Your task to perform on an android device: check google app version Image 0: 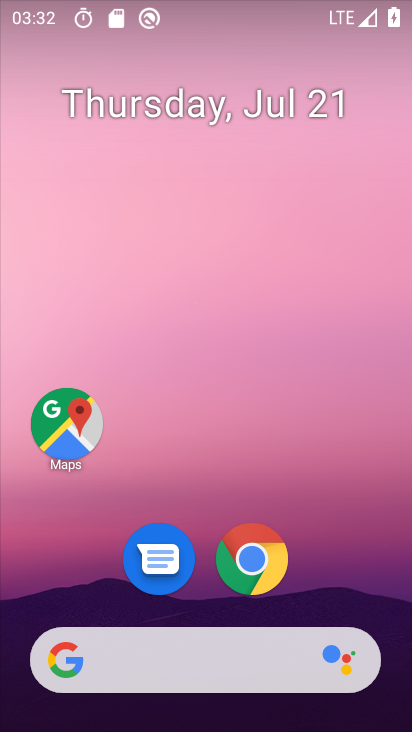
Step 0: drag from (337, 574) to (351, 97)
Your task to perform on an android device: check google app version Image 1: 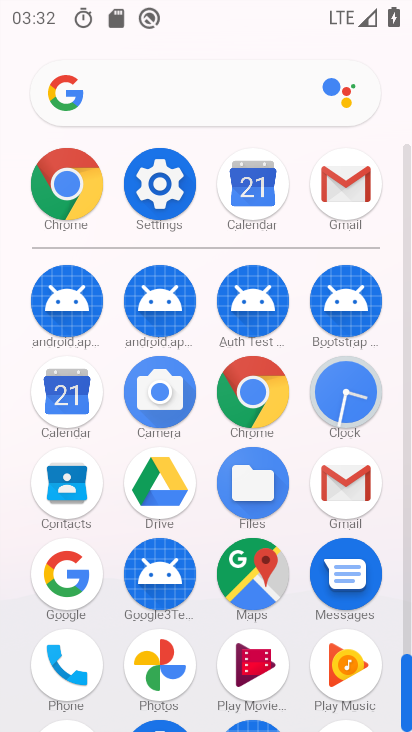
Step 1: click (69, 569)
Your task to perform on an android device: check google app version Image 2: 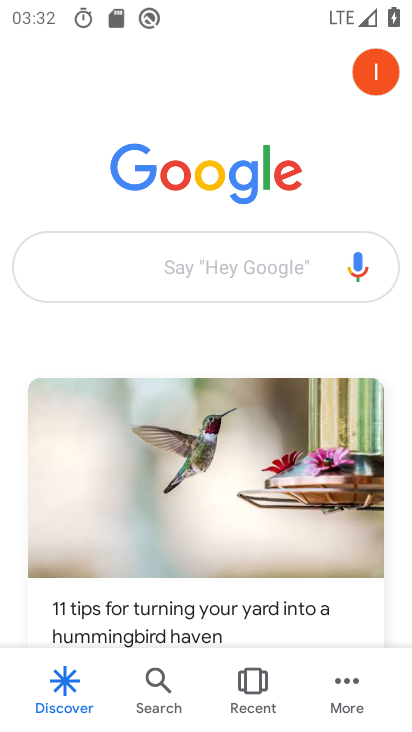
Step 2: click (343, 693)
Your task to perform on an android device: check google app version Image 3: 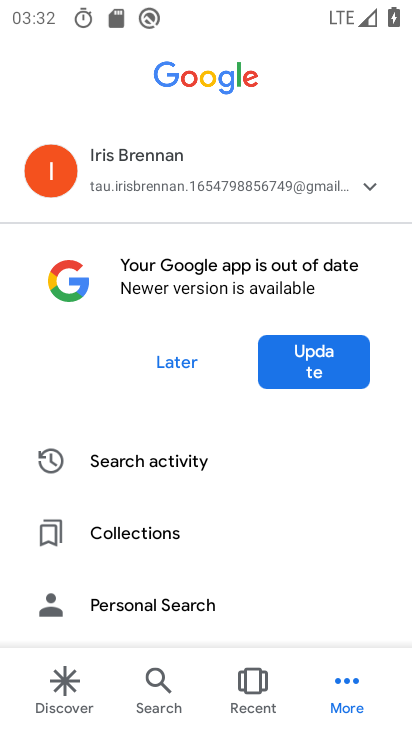
Step 3: drag from (352, 614) to (363, 496)
Your task to perform on an android device: check google app version Image 4: 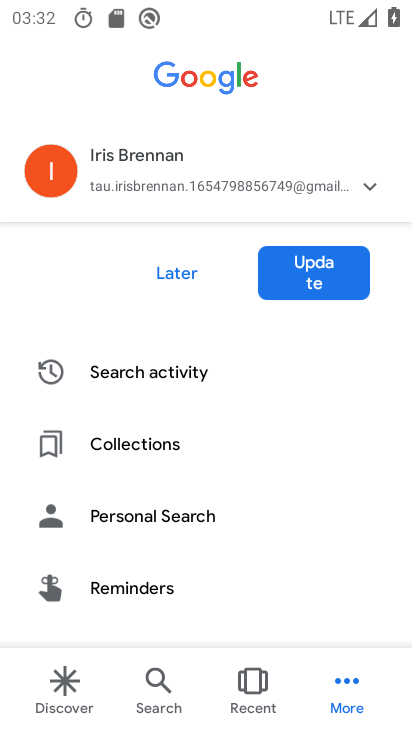
Step 4: drag from (341, 565) to (335, 474)
Your task to perform on an android device: check google app version Image 5: 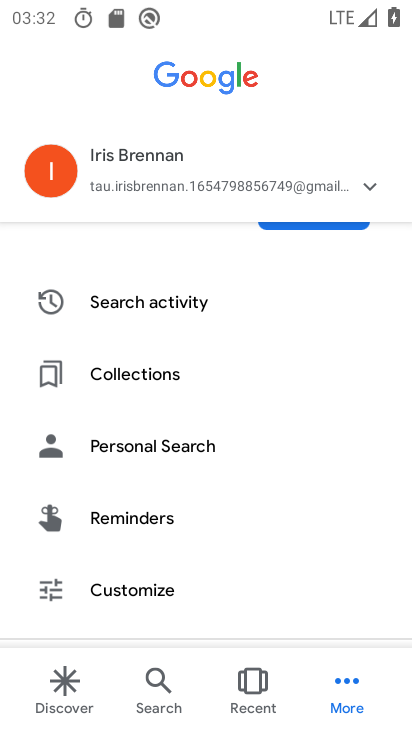
Step 5: drag from (324, 542) to (323, 444)
Your task to perform on an android device: check google app version Image 6: 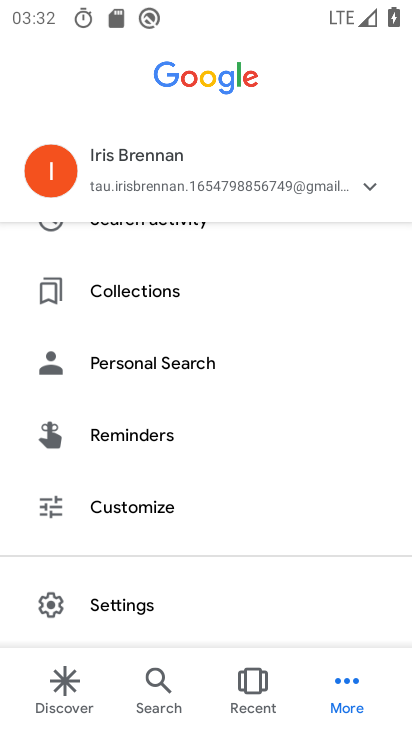
Step 6: click (263, 597)
Your task to perform on an android device: check google app version Image 7: 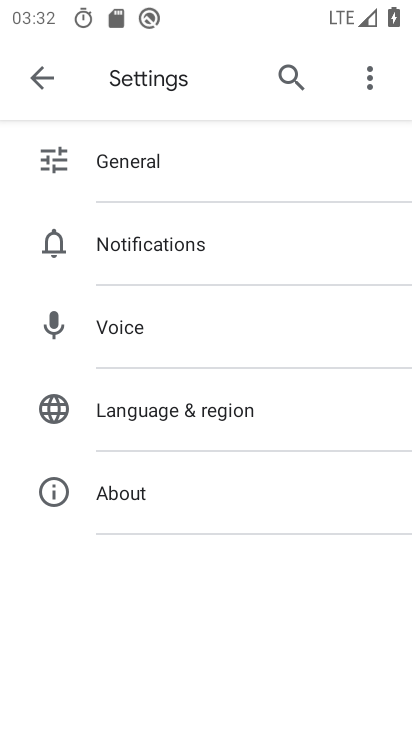
Step 7: click (226, 503)
Your task to perform on an android device: check google app version Image 8: 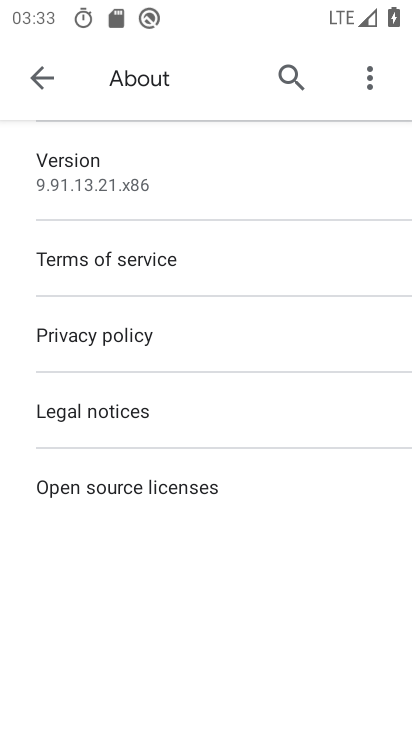
Step 8: task complete